Your task to perform on an android device: turn on data saver in the chrome app Image 0: 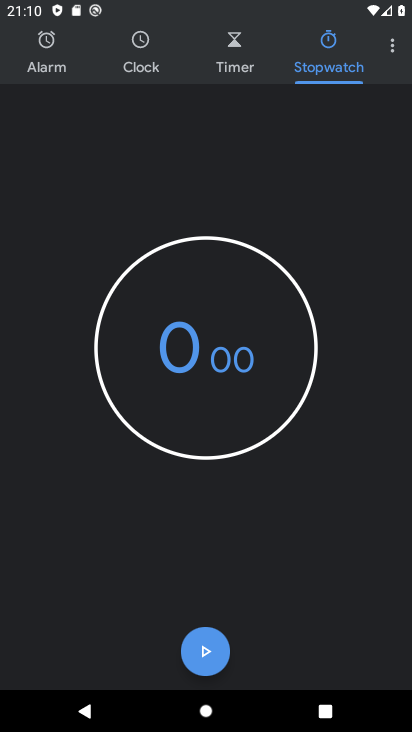
Step 0: press home button
Your task to perform on an android device: turn on data saver in the chrome app Image 1: 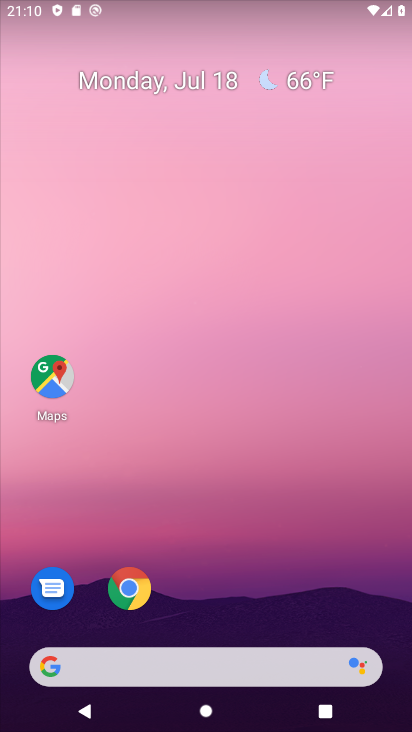
Step 1: click (132, 584)
Your task to perform on an android device: turn on data saver in the chrome app Image 2: 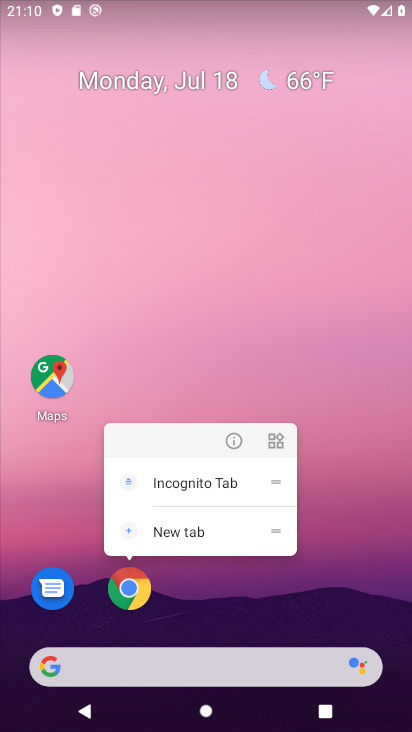
Step 2: click (129, 585)
Your task to perform on an android device: turn on data saver in the chrome app Image 3: 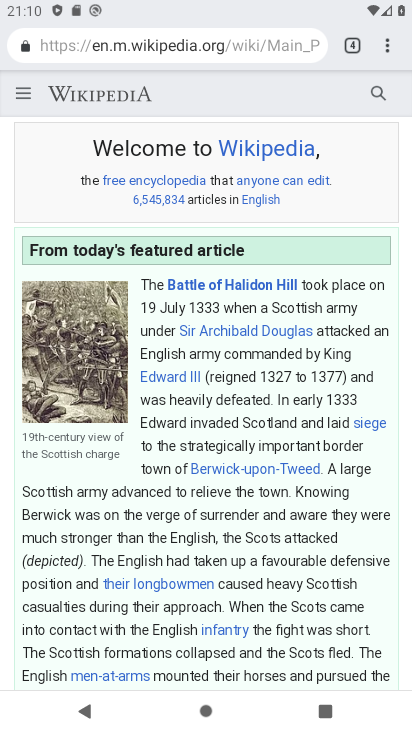
Step 3: drag from (385, 47) to (241, 554)
Your task to perform on an android device: turn on data saver in the chrome app Image 4: 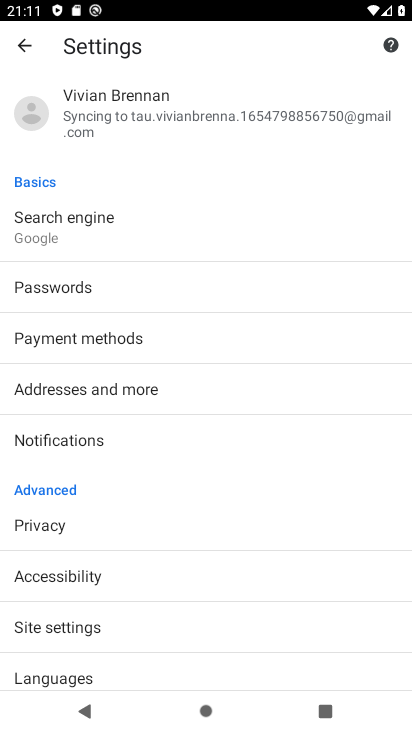
Step 4: drag from (223, 590) to (338, 268)
Your task to perform on an android device: turn on data saver in the chrome app Image 5: 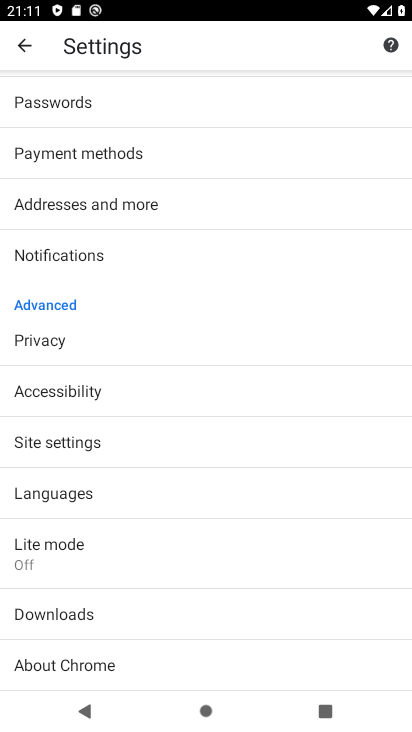
Step 5: click (79, 551)
Your task to perform on an android device: turn on data saver in the chrome app Image 6: 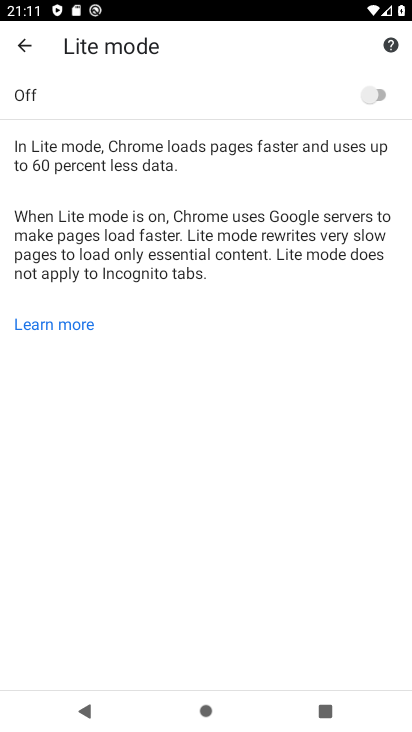
Step 6: click (380, 91)
Your task to perform on an android device: turn on data saver in the chrome app Image 7: 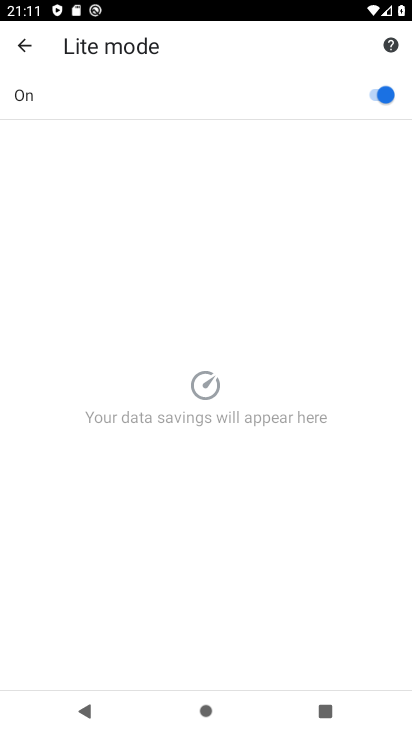
Step 7: task complete